Your task to perform on an android device: change the clock style Image 0: 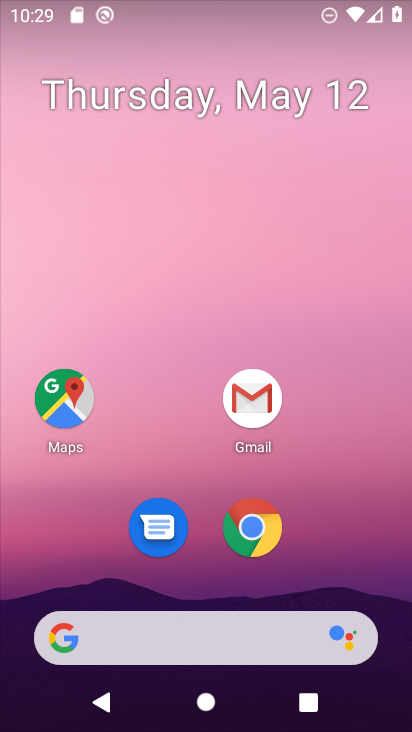
Step 0: drag from (328, 548) to (324, 127)
Your task to perform on an android device: change the clock style Image 1: 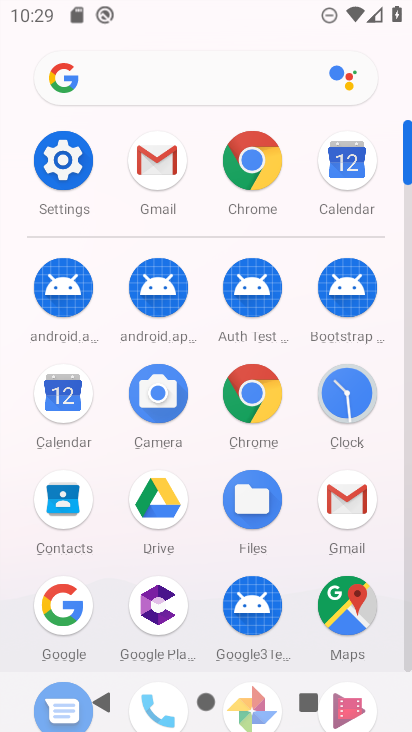
Step 1: click (338, 393)
Your task to perform on an android device: change the clock style Image 2: 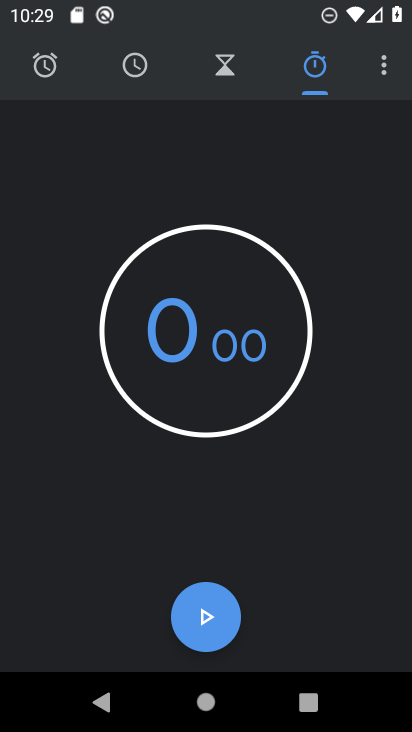
Step 2: click (363, 60)
Your task to perform on an android device: change the clock style Image 3: 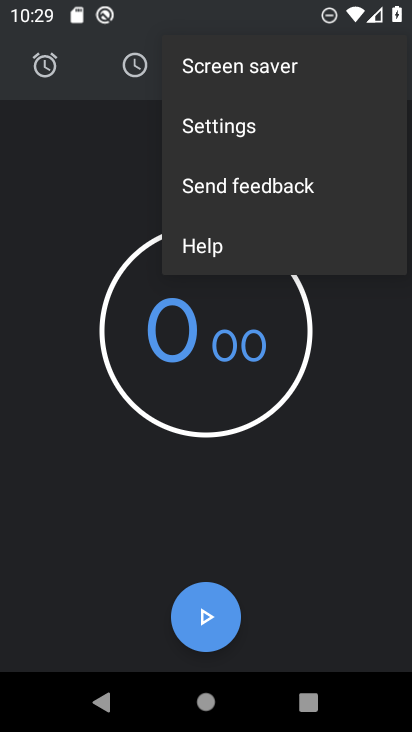
Step 3: click (288, 126)
Your task to perform on an android device: change the clock style Image 4: 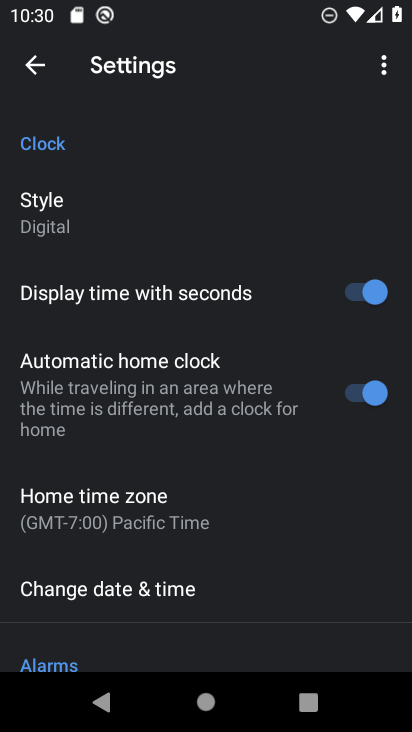
Step 4: click (194, 234)
Your task to perform on an android device: change the clock style Image 5: 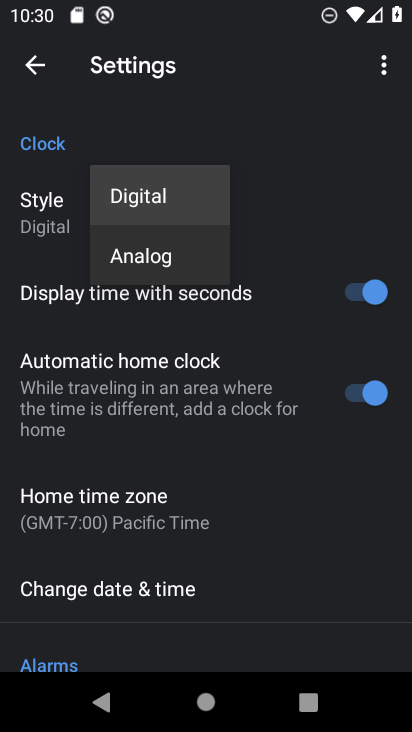
Step 5: click (191, 267)
Your task to perform on an android device: change the clock style Image 6: 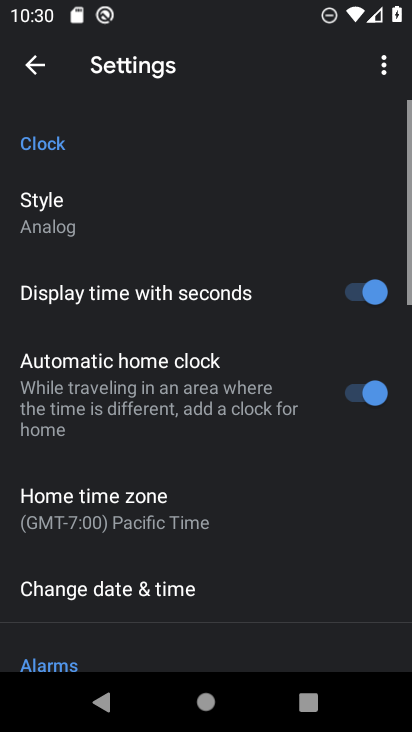
Step 6: task complete